Your task to perform on an android device: Is it going to rain today? Image 0: 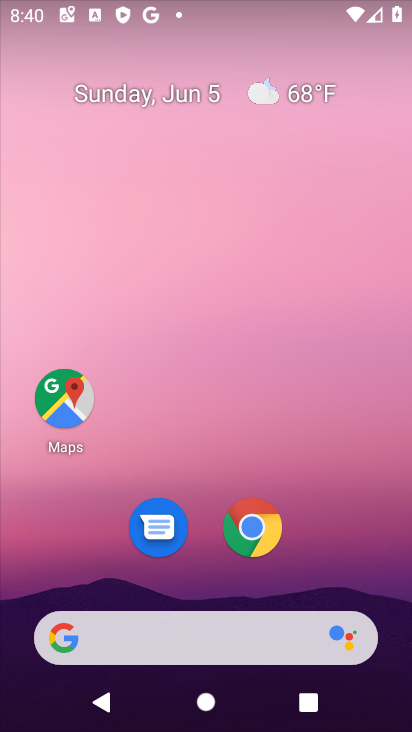
Step 0: click (304, 95)
Your task to perform on an android device: Is it going to rain today? Image 1: 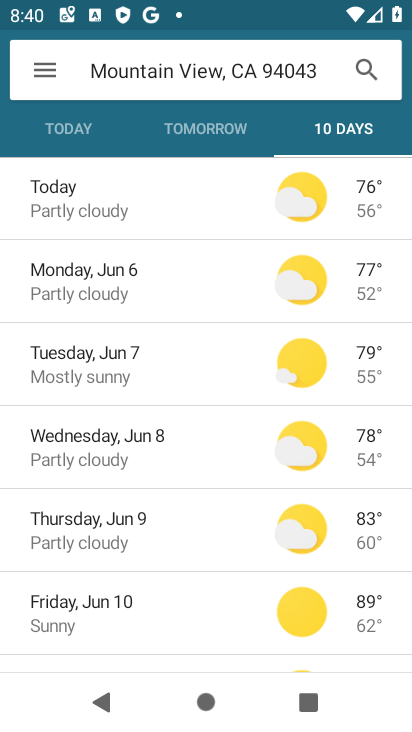
Step 1: click (81, 124)
Your task to perform on an android device: Is it going to rain today? Image 2: 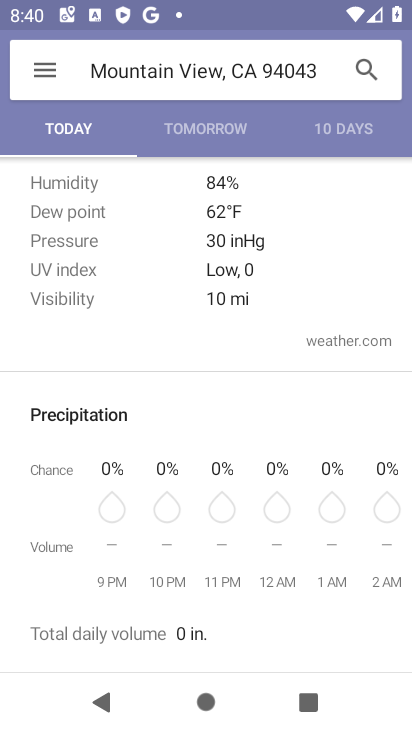
Step 2: task complete